Your task to perform on an android device: Do I have any events today? Image 0: 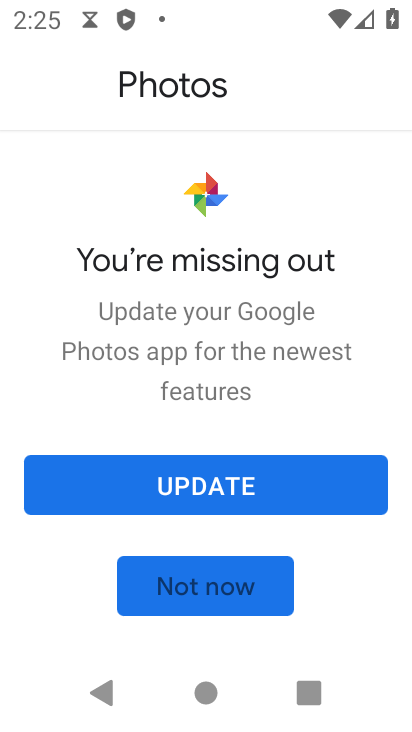
Step 0: press back button
Your task to perform on an android device: Do I have any events today? Image 1: 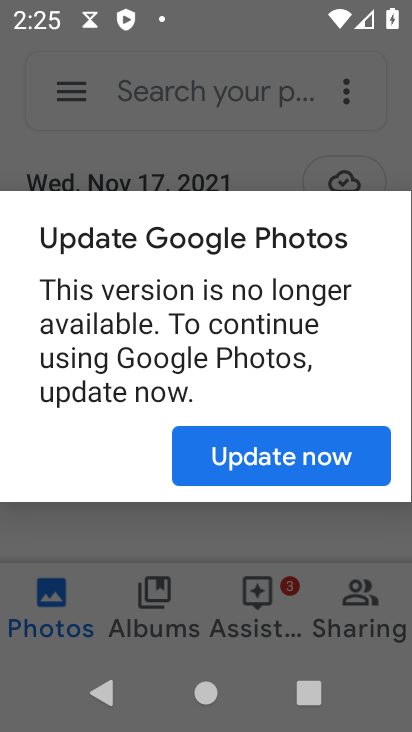
Step 1: press back button
Your task to perform on an android device: Do I have any events today? Image 2: 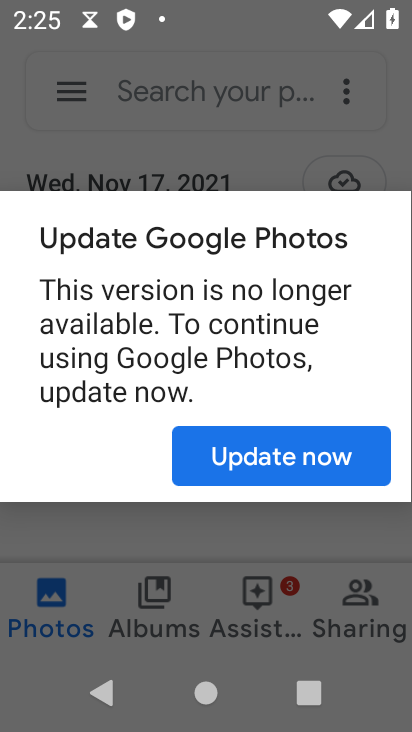
Step 2: press home button
Your task to perform on an android device: Do I have any events today? Image 3: 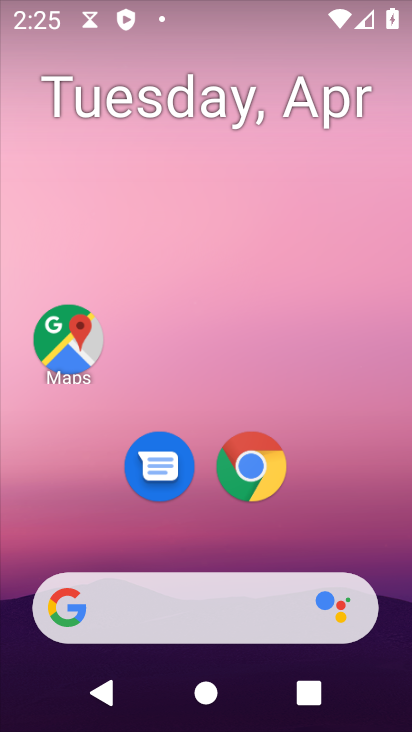
Step 3: drag from (328, 527) to (322, 43)
Your task to perform on an android device: Do I have any events today? Image 4: 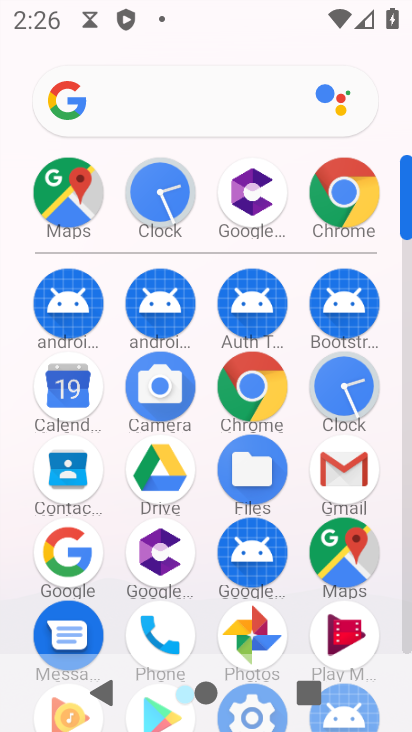
Step 4: click (67, 387)
Your task to perform on an android device: Do I have any events today? Image 5: 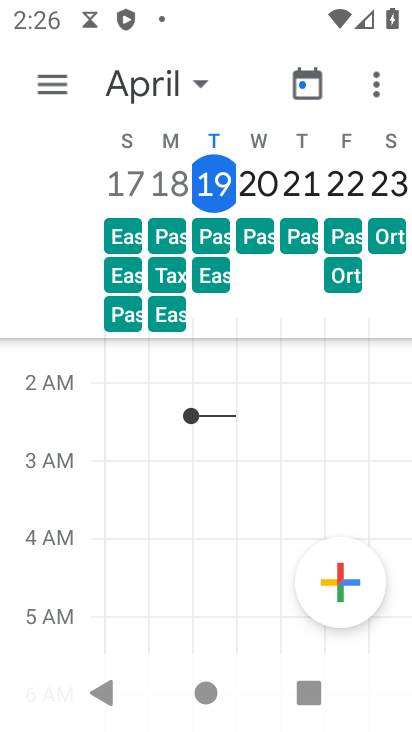
Step 5: click (56, 91)
Your task to perform on an android device: Do I have any events today? Image 6: 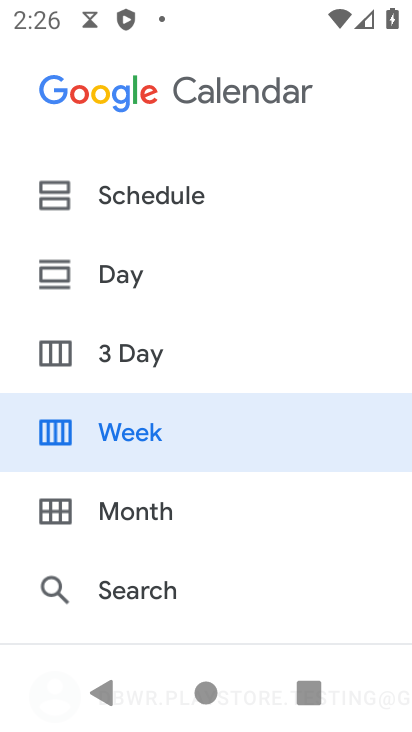
Step 6: click (136, 266)
Your task to perform on an android device: Do I have any events today? Image 7: 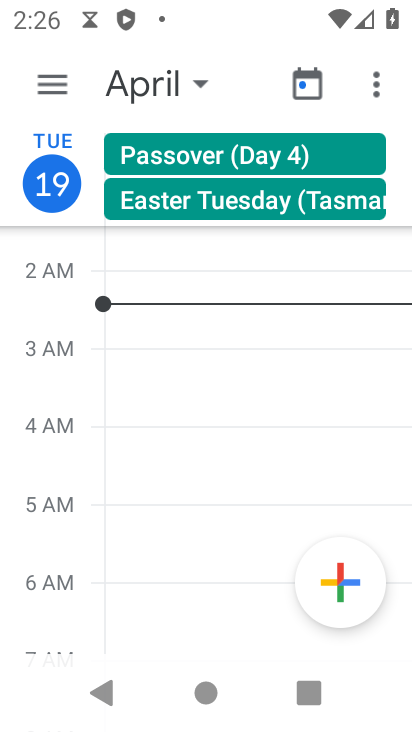
Step 7: click (52, 83)
Your task to perform on an android device: Do I have any events today? Image 8: 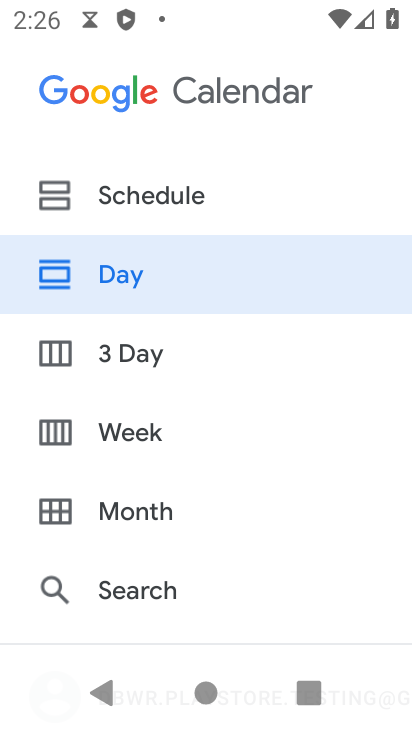
Step 8: drag from (194, 674) to (213, 320)
Your task to perform on an android device: Do I have any events today? Image 9: 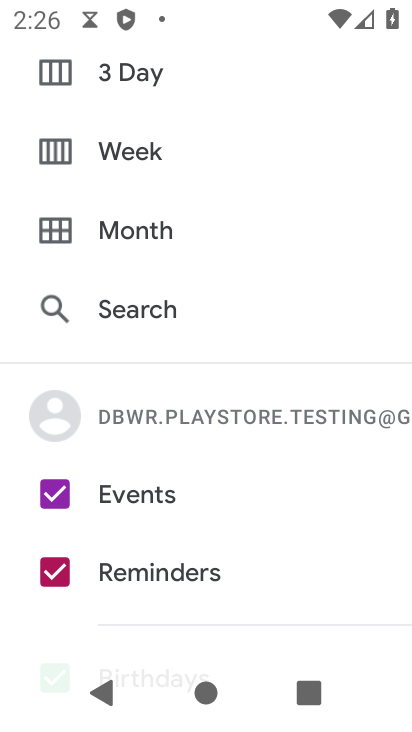
Step 9: drag from (197, 552) to (211, 296)
Your task to perform on an android device: Do I have any events today? Image 10: 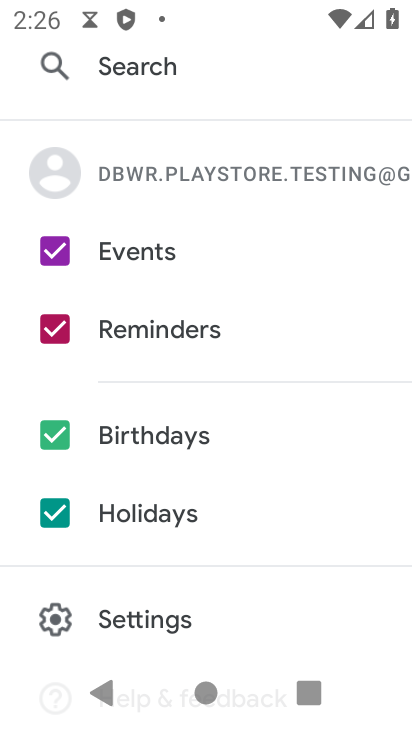
Step 10: click (49, 320)
Your task to perform on an android device: Do I have any events today? Image 11: 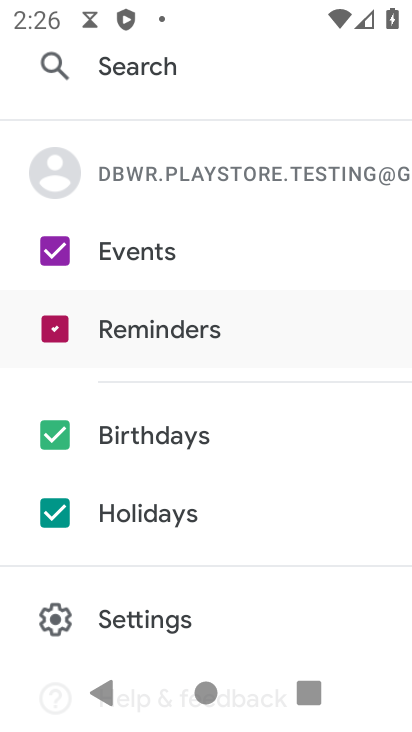
Step 11: drag from (47, 439) to (45, 505)
Your task to perform on an android device: Do I have any events today? Image 12: 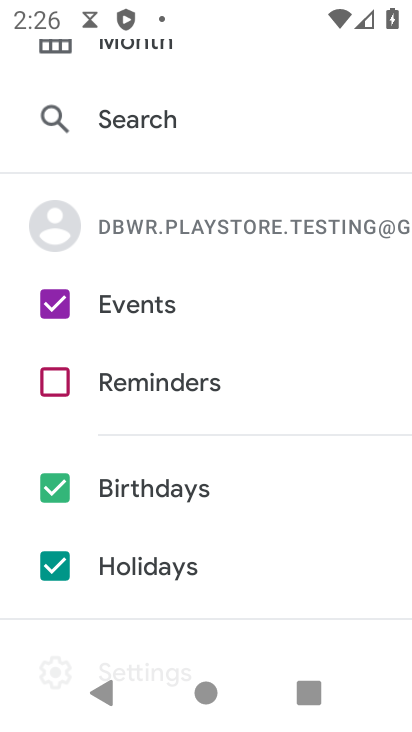
Step 12: click (56, 486)
Your task to perform on an android device: Do I have any events today? Image 13: 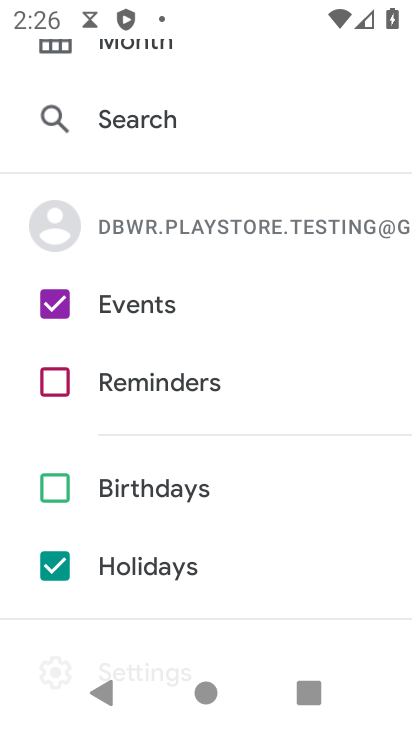
Step 13: click (50, 572)
Your task to perform on an android device: Do I have any events today? Image 14: 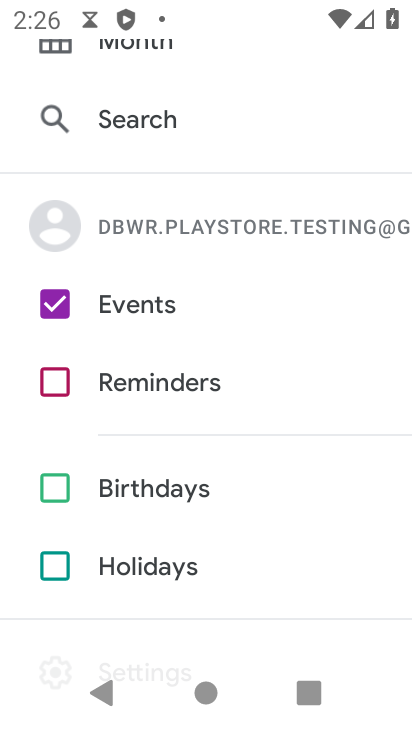
Step 14: drag from (252, 204) to (260, 524)
Your task to perform on an android device: Do I have any events today? Image 15: 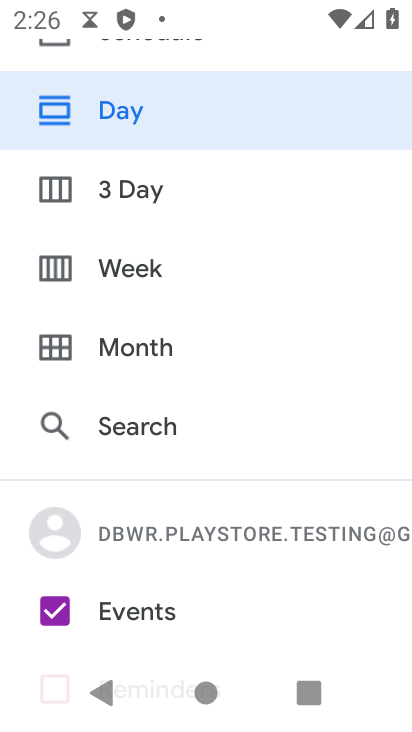
Step 15: drag from (226, 183) to (204, 472)
Your task to perform on an android device: Do I have any events today? Image 16: 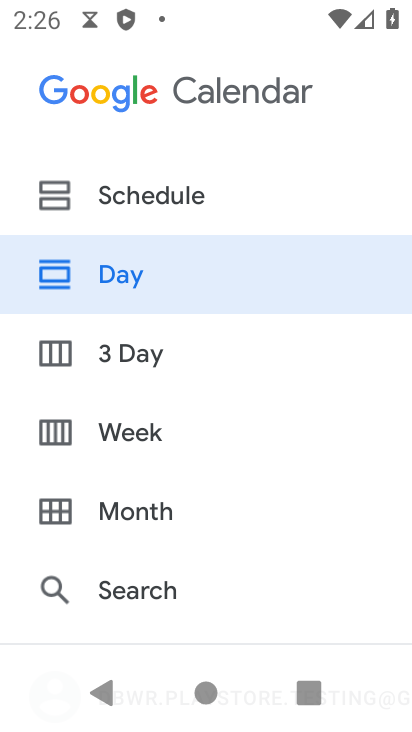
Step 16: click (164, 180)
Your task to perform on an android device: Do I have any events today? Image 17: 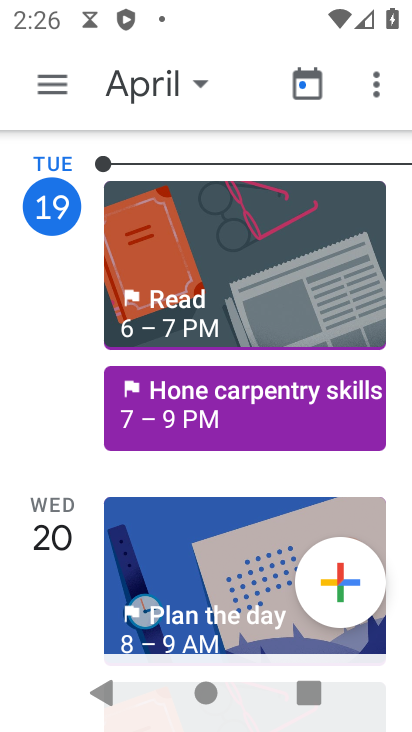
Step 17: task complete